Your task to perform on an android device: manage bookmarks in the chrome app Image 0: 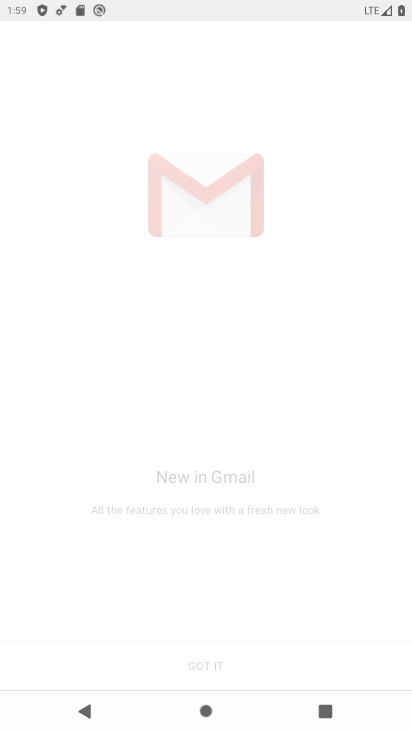
Step 0: drag from (323, 591) to (347, 197)
Your task to perform on an android device: manage bookmarks in the chrome app Image 1: 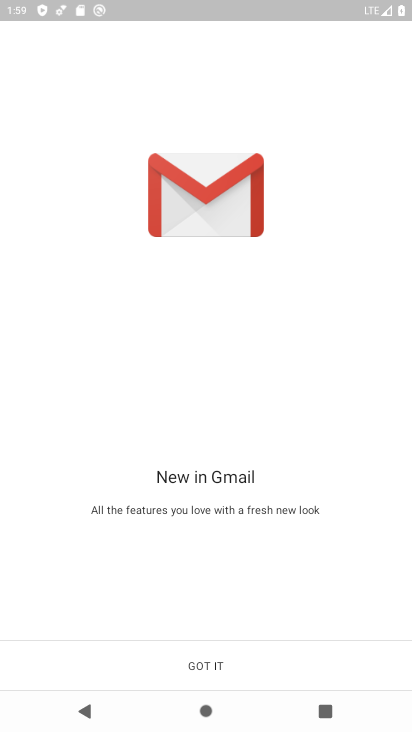
Step 1: press home button
Your task to perform on an android device: manage bookmarks in the chrome app Image 2: 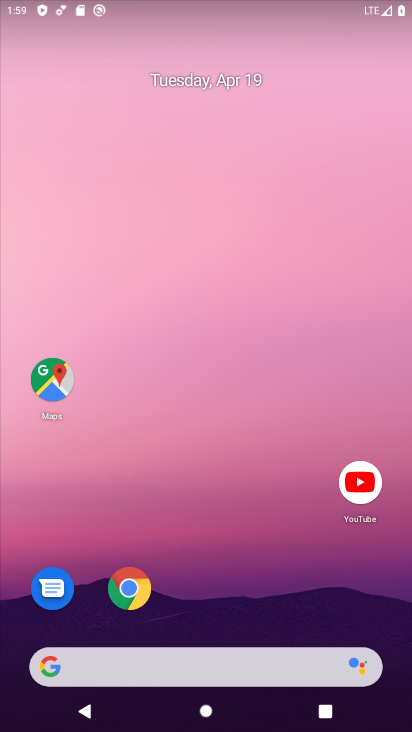
Step 2: click (135, 591)
Your task to perform on an android device: manage bookmarks in the chrome app Image 3: 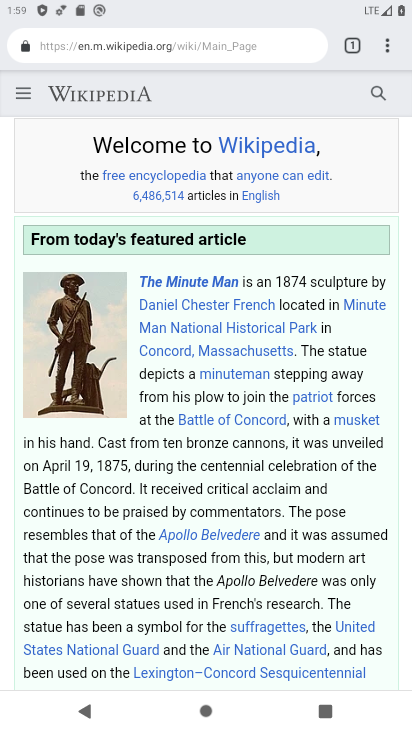
Step 3: task complete